Your task to perform on an android device: turn off notifications in google photos Image 0: 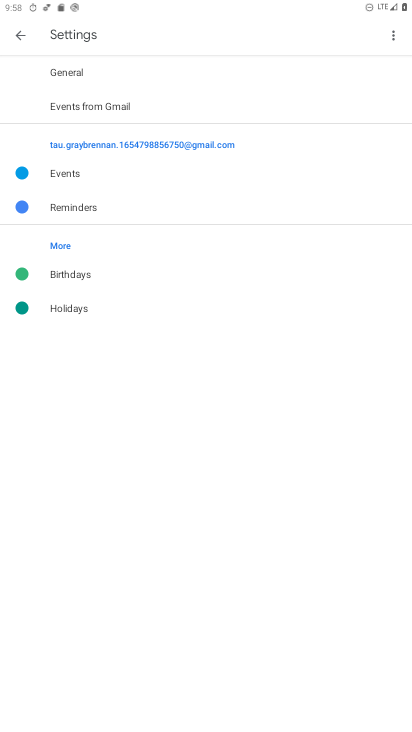
Step 0: press home button
Your task to perform on an android device: turn off notifications in google photos Image 1: 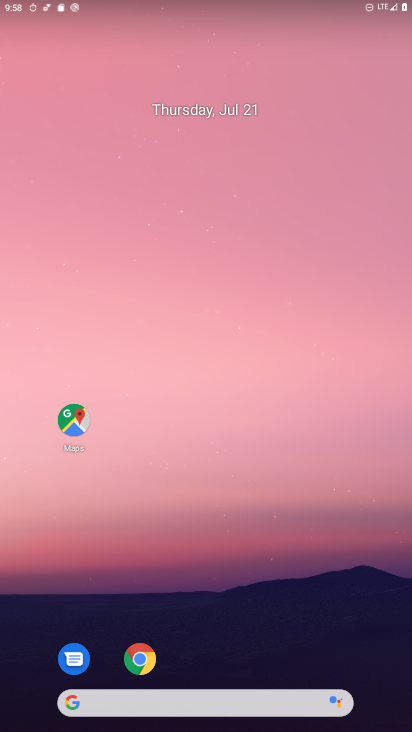
Step 1: drag from (239, 582) to (147, 126)
Your task to perform on an android device: turn off notifications in google photos Image 2: 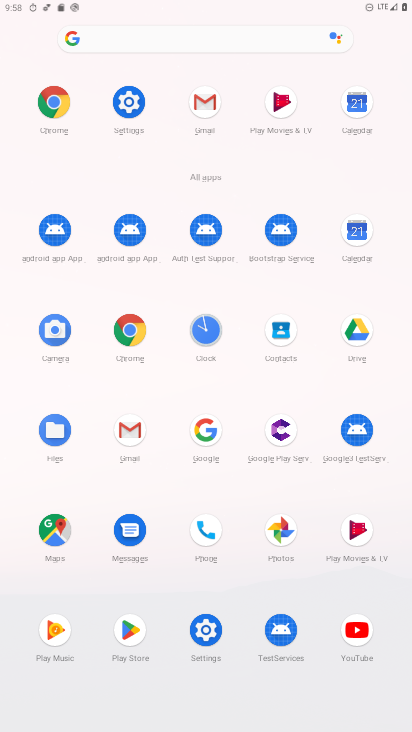
Step 2: click (280, 522)
Your task to perform on an android device: turn off notifications in google photos Image 3: 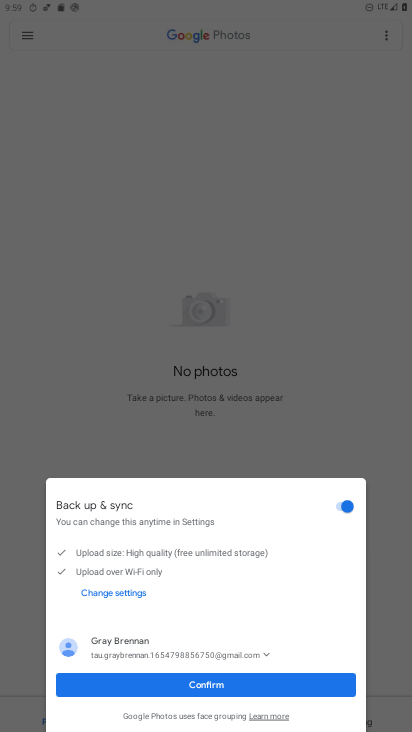
Step 3: click (268, 691)
Your task to perform on an android device: turn off notifications in google photos Image 4: 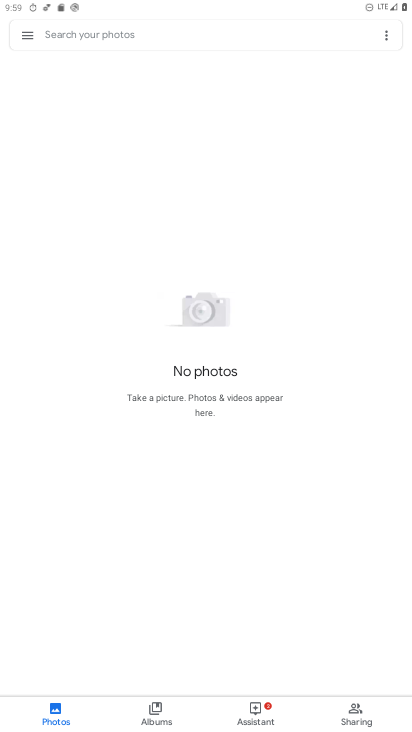
Step 4: click (22, 31)
Your task to perform on an android device: turn off notifications in google photos Image 5: 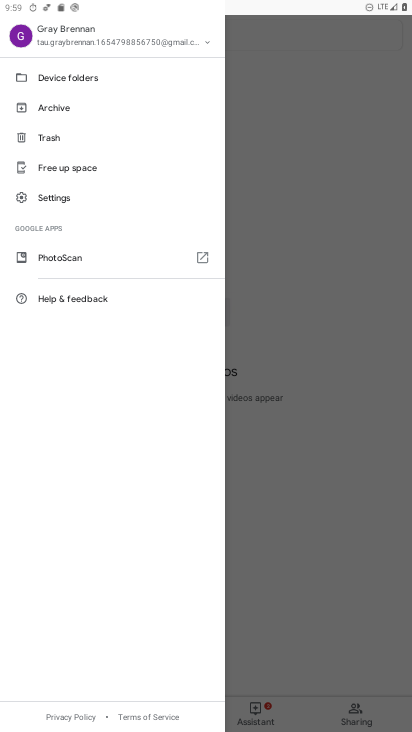
Step 5: click (63, 195)
Your task to perform on an android device: turn off notifications in google photos Image 6: 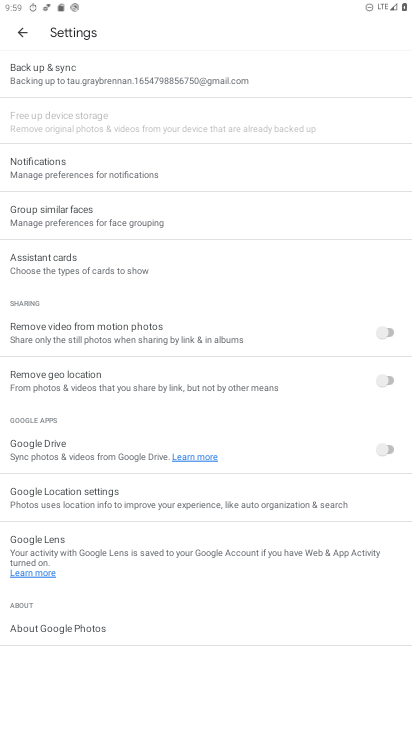
Step 6: click (65, 173)
Your task to perform on an android device: turn off notifications in google photos Image 7: 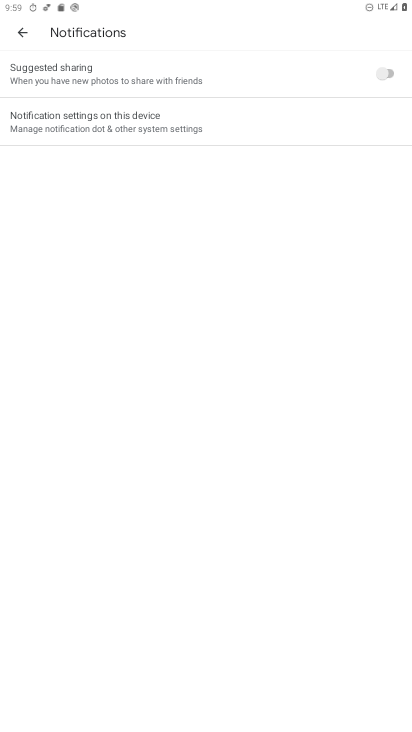
Step 7: click (327, 111)
Your task to perform on an android device: turn off notifications in google photos Image 8: 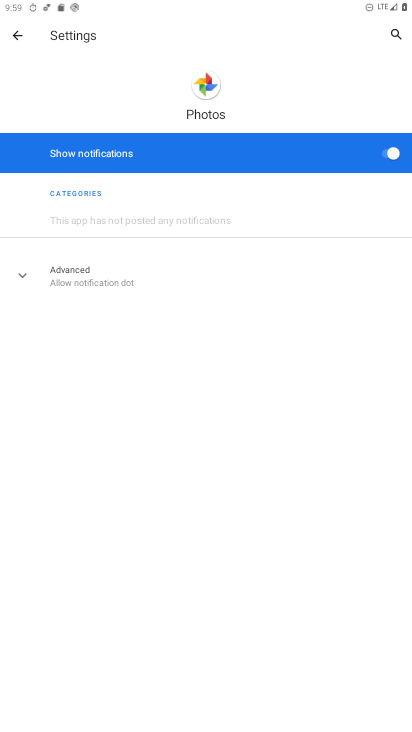
Step 8: click (374, 146)
Your task to perform on an android device: turn off notifications in google photos Image 9: 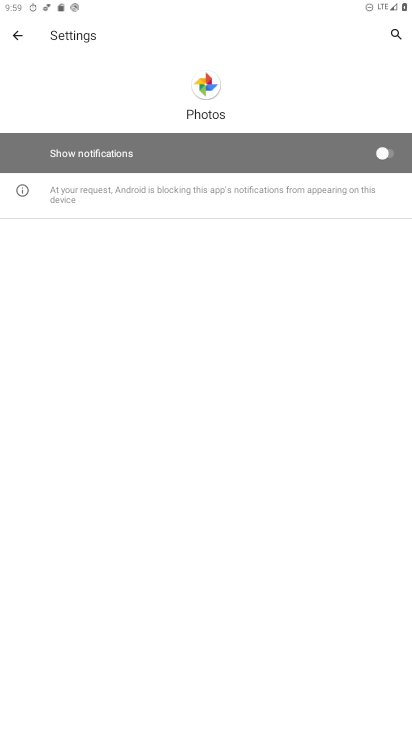
Step 9: task complete